Your task to perform on an android device: Open the web browser Image 0: 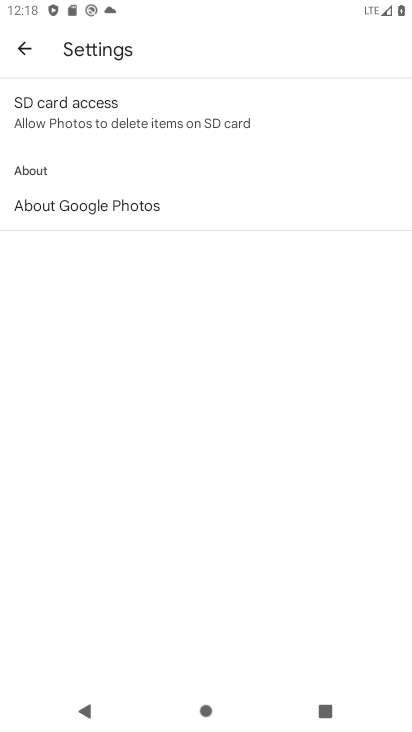
Step 0: press home button
Your task to perform on an android device: Open the web browser Image 1: 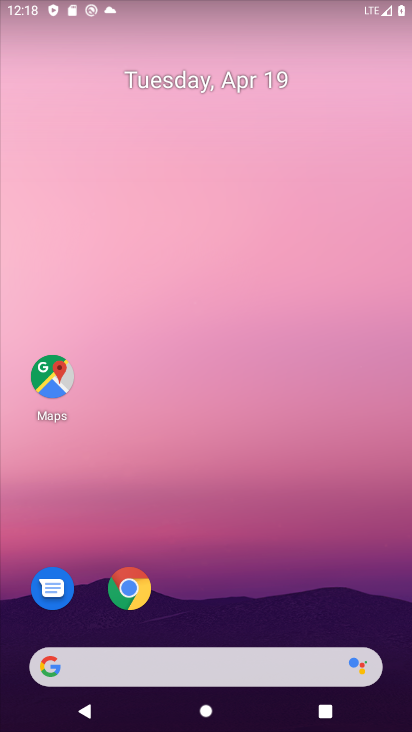
Step 1: drag from (380, 611) to (360, 64)
Your task to perform on an android device: Open the web browser Image 2: 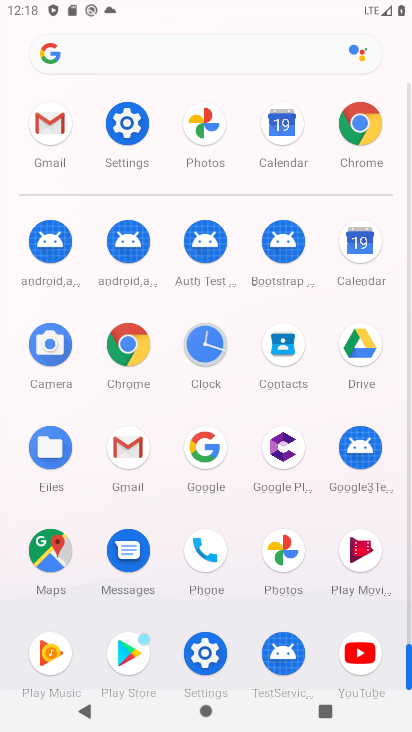
Step 2: click (363, 137)
Your task to perform on an android device: Open the web browser Image 3: 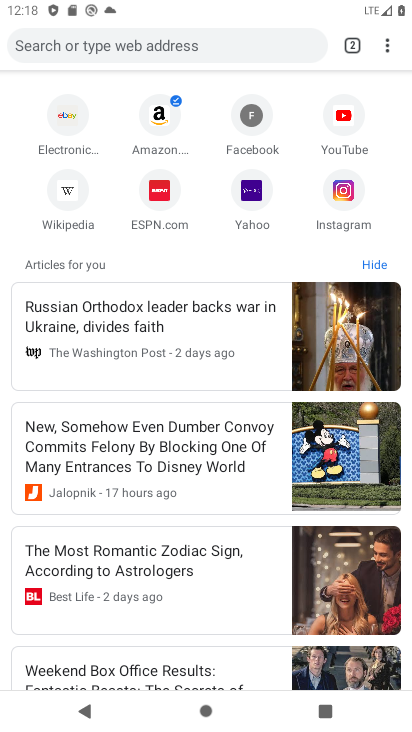
Step 3: task complete